Your task to perform on an android device: turn off priority inbox in the gmail app Image 0: 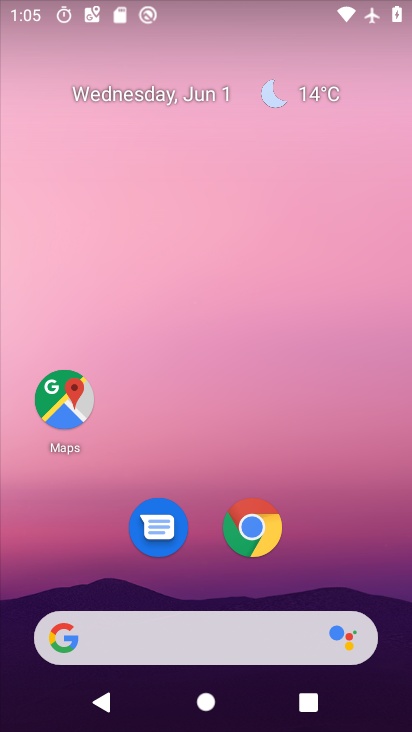
Step 0: press home button
Your task to perform on an android device: turn off priority inbox in the gmail app Image 1: 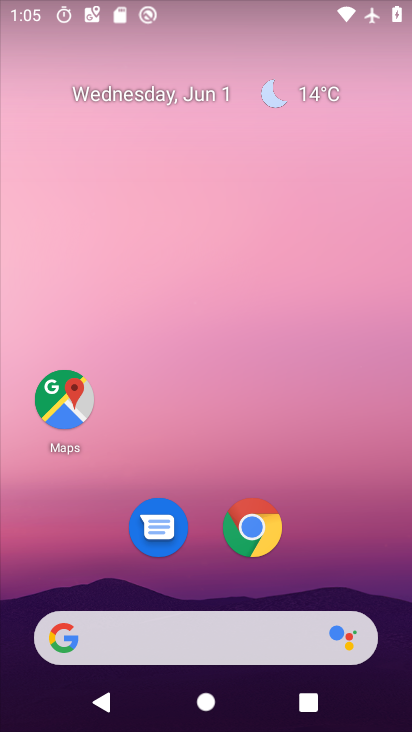
Step 1: drag from (322, 512) to (359, 30)
Your task to perform on an android device: turn off priority inbox in the gmail app Image 2: 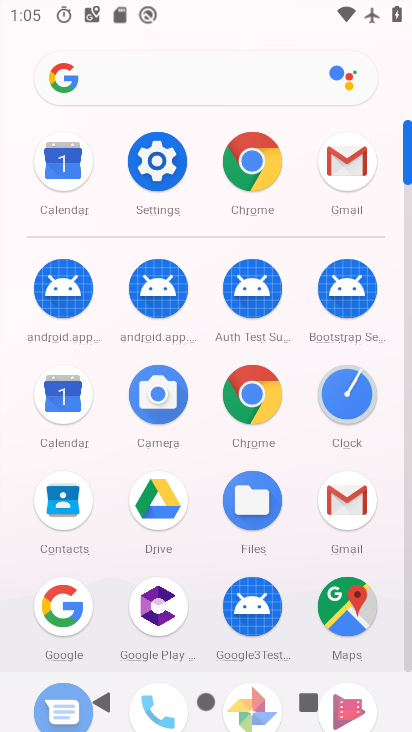
Step 2: click (352, 217)
Your task to perform on an android device: turn off priority inbox in the gmail app Image 3: 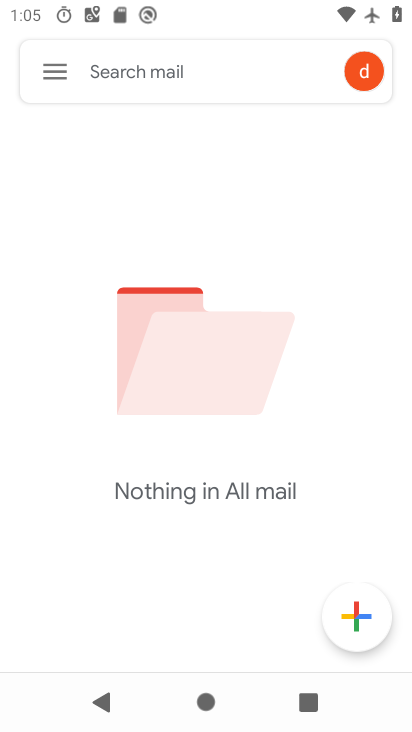
Step 3: click (41, 71)
Your task to perform on an android device: turn off priority inbox in the gmail app Image 4: 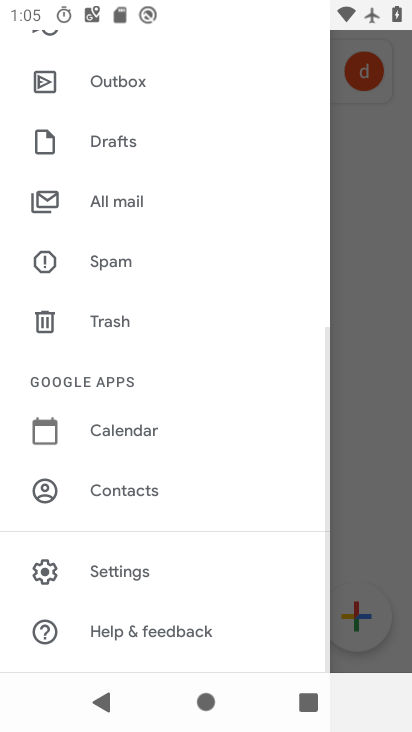
Step 4: click (101, 572)
Your task to perform on an android device: turn off priority inbox in the gmail app Image 5: 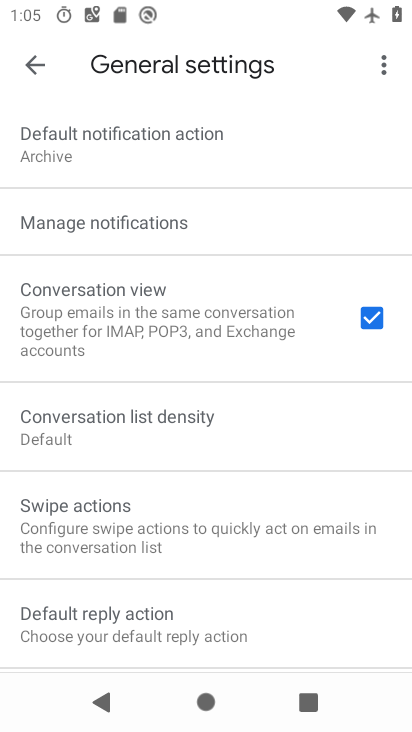
Step 5: click (44, 68)
Your task to perform on an android device: turn off priority inbox in the gmail app Image 6: 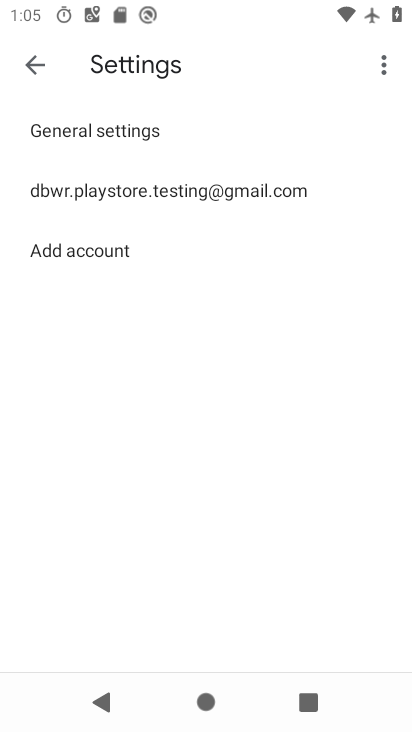
Step 6: click (75, 196)
Your task to perform on an android device: turn off priority inbox in the gmail app Image 7: 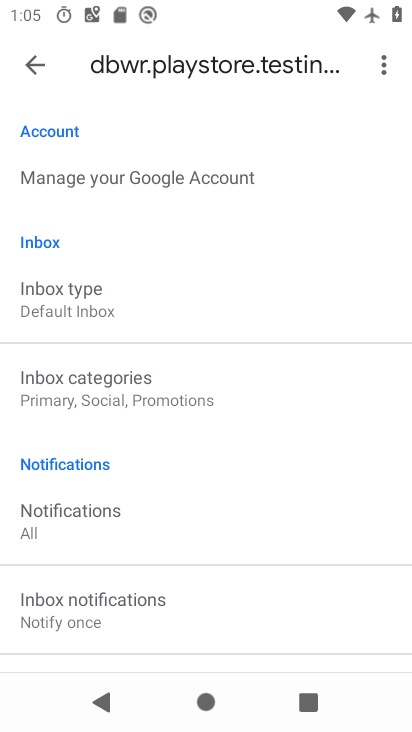
Step 7: click (81, 312)
Your task to perform on an android device: turn off priority inbox in the gmail app Image 8: 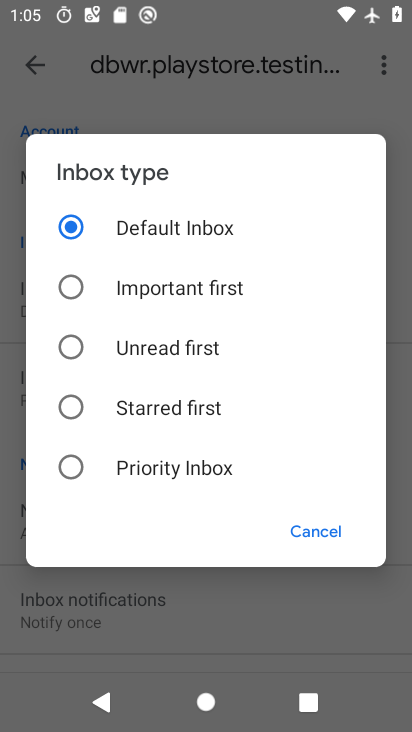
Step 8: task complete